Your task to perform on an android device: Clear the shopping cart on amazon. Add "amazon basics triple a" to the cart on amazon Image 0: 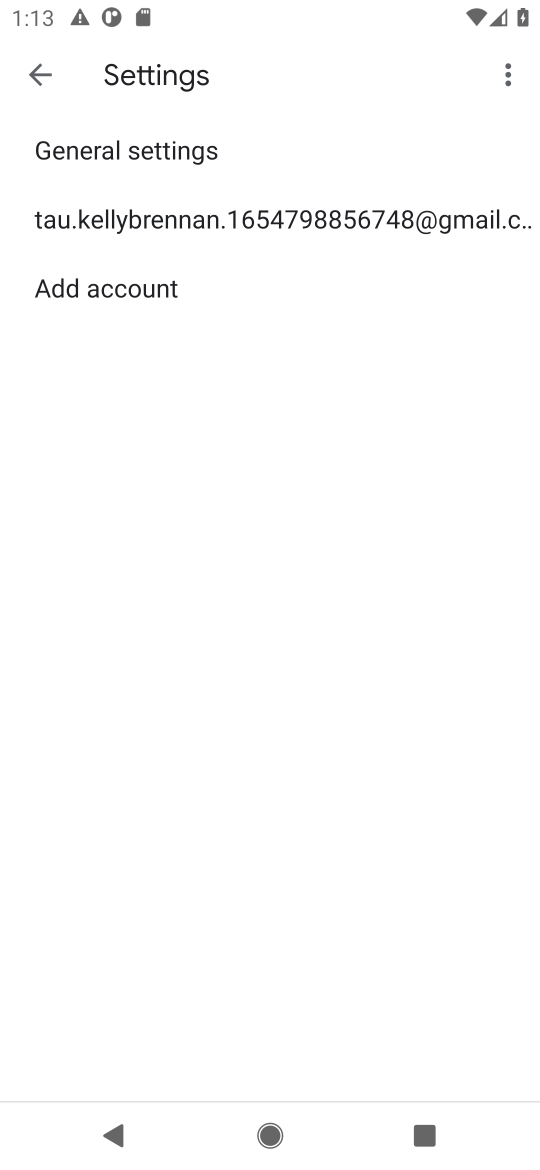
Step 0: task complete